Your task to perform on an android device: Show me the alarms in the clock app Image 0: 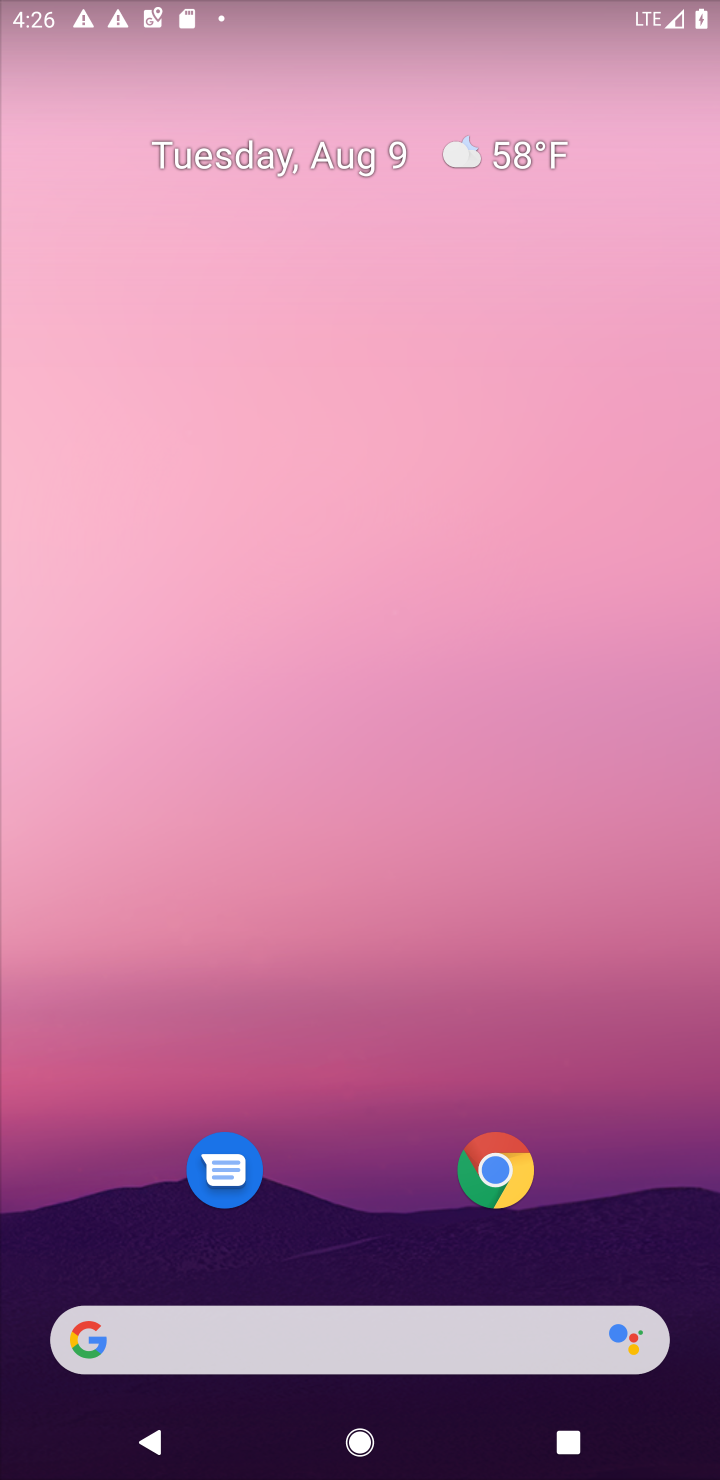
Step 0: press home button
Your task to perform on an android device: Show me the alarms in the clock app Image 1: 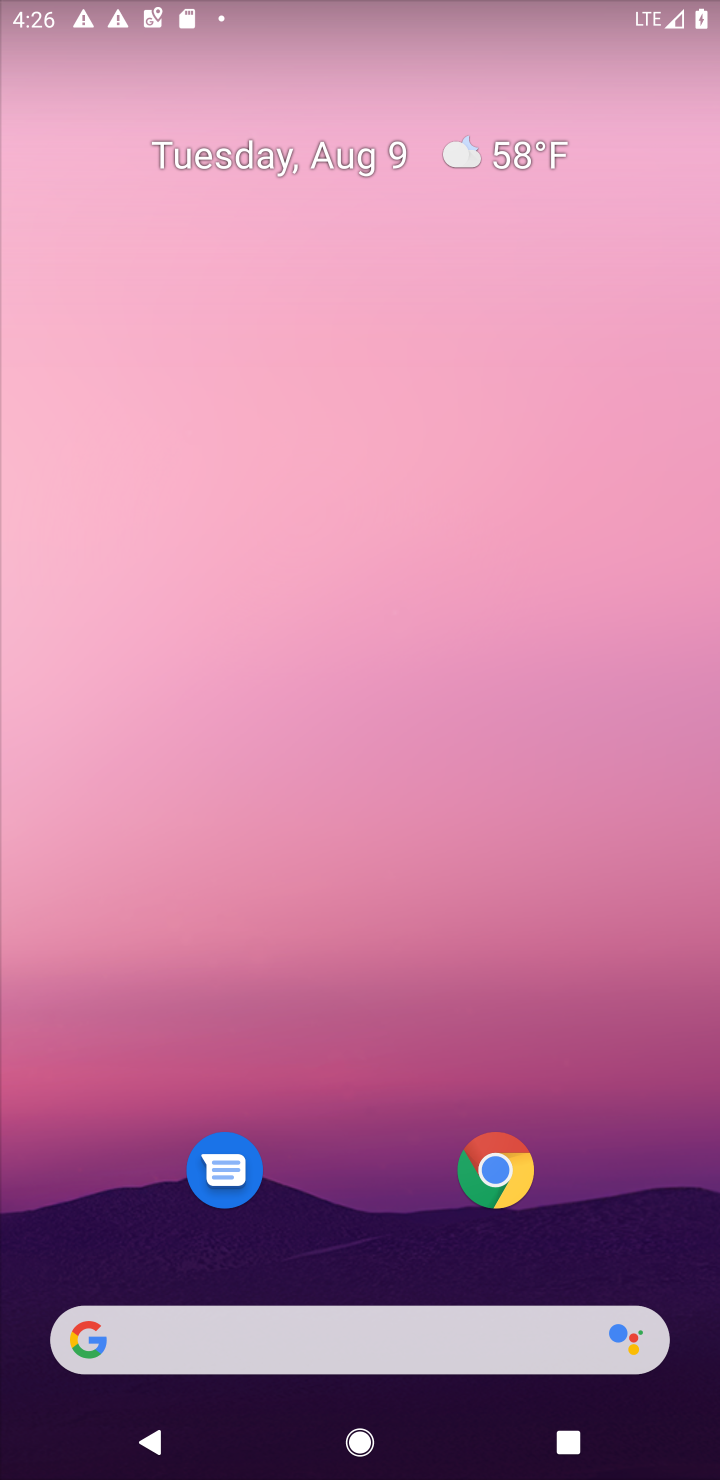
Step 1: drag from (339, 750) to (333, 119)
Your task to perform on an android device: Show me the alarms in the clock app Image 2: 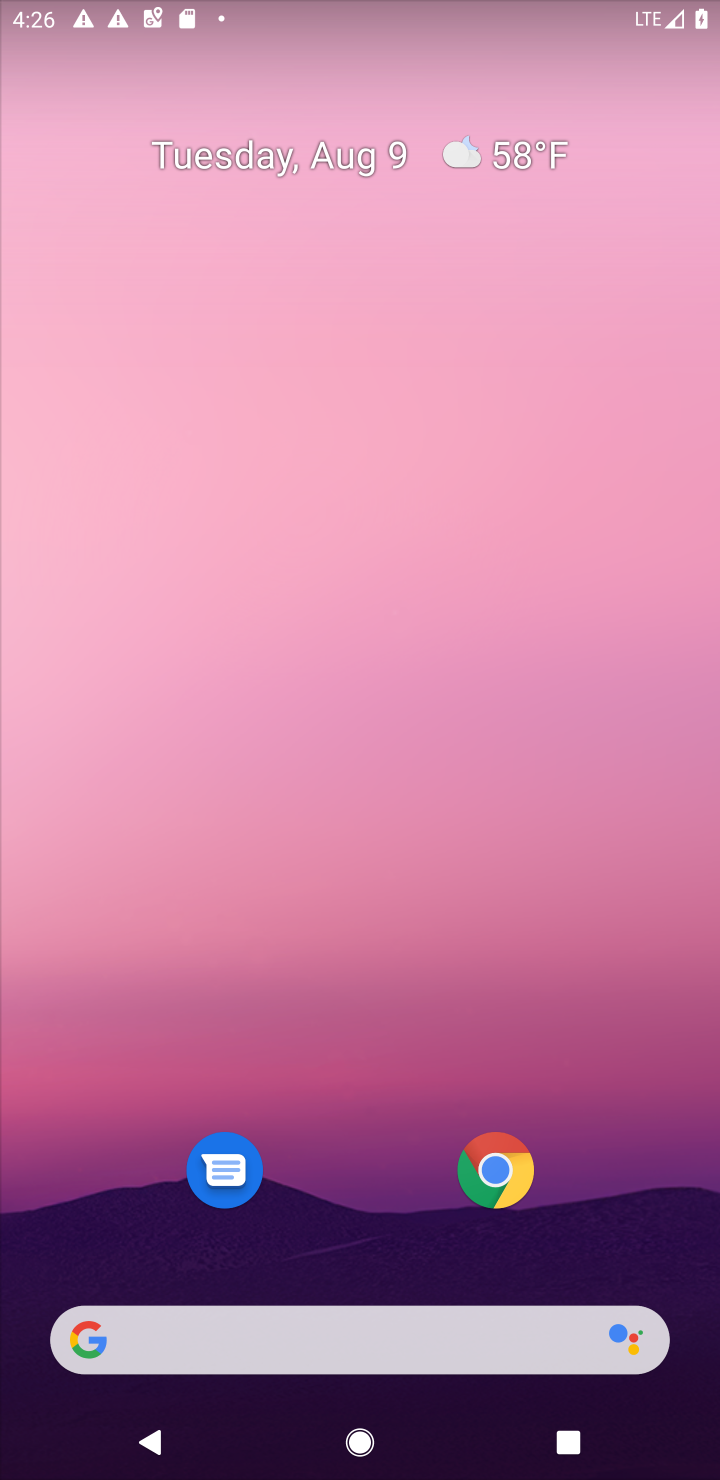
Step 2: drag from (362, 329) to (359, 26)
Your task to perform on an android device: Show me the alarms in the clock app Image 3: 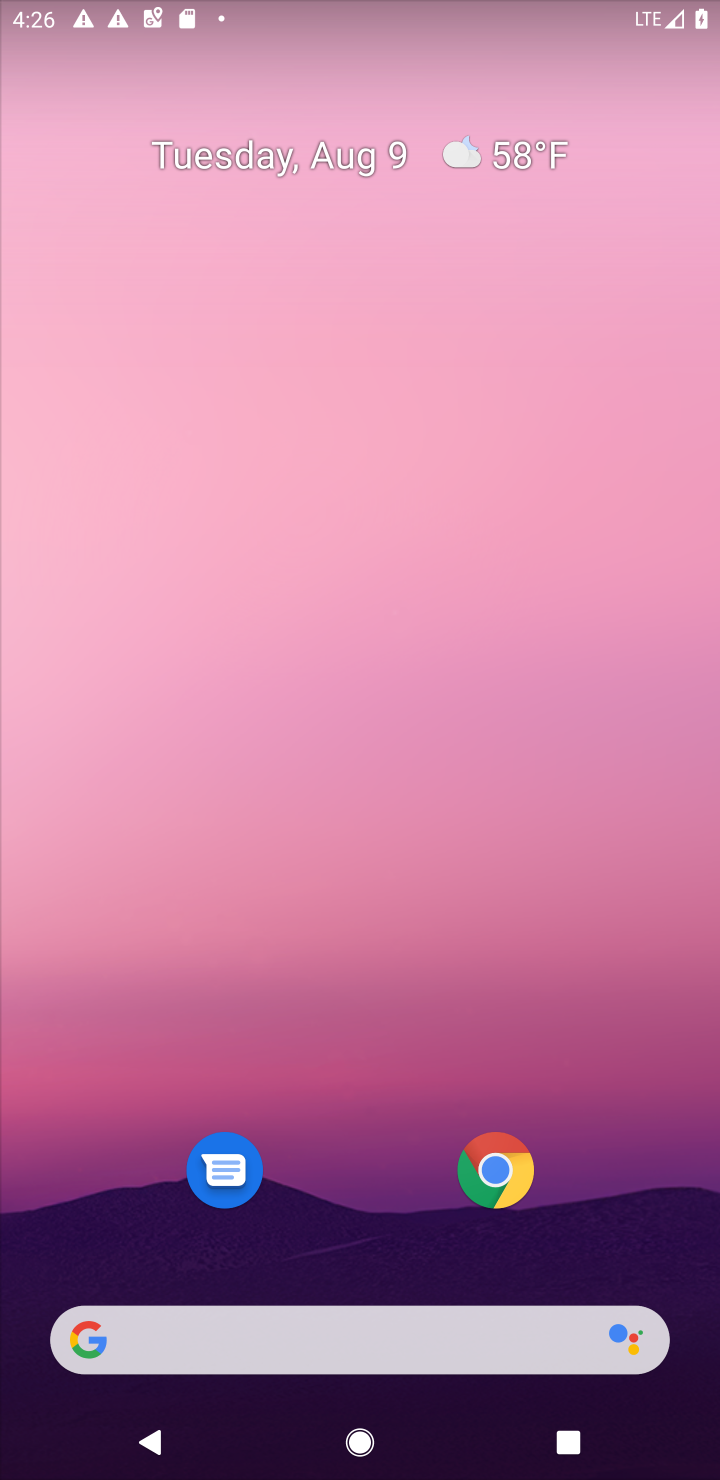
Step 3: drag from (322, 392) to (606, 4)
Your task to perform on an android device: Show me the alarms in the clock app Image 4: 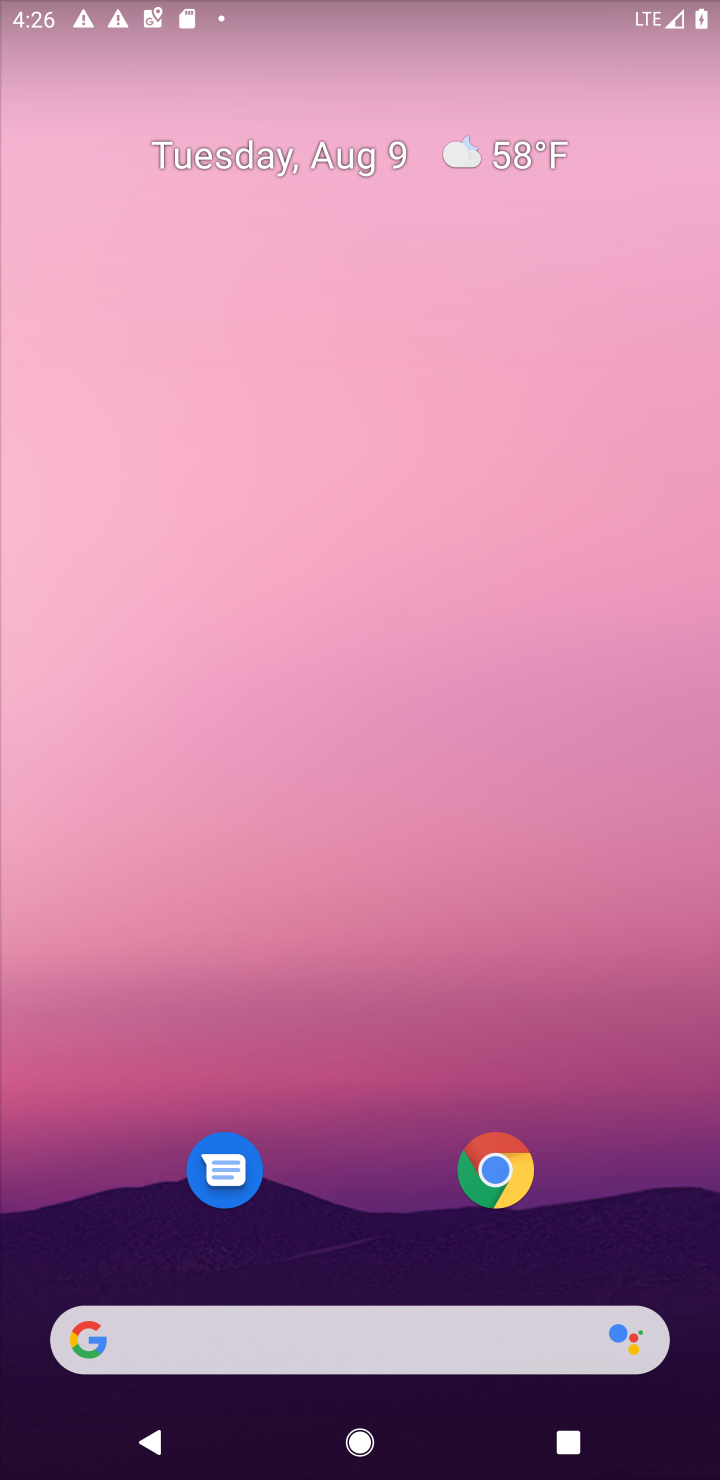
Step 4: drag from (364, 1209) to (653, 49)
Your task to perform on an android device: Show me the alarms in the clock app Image 5: 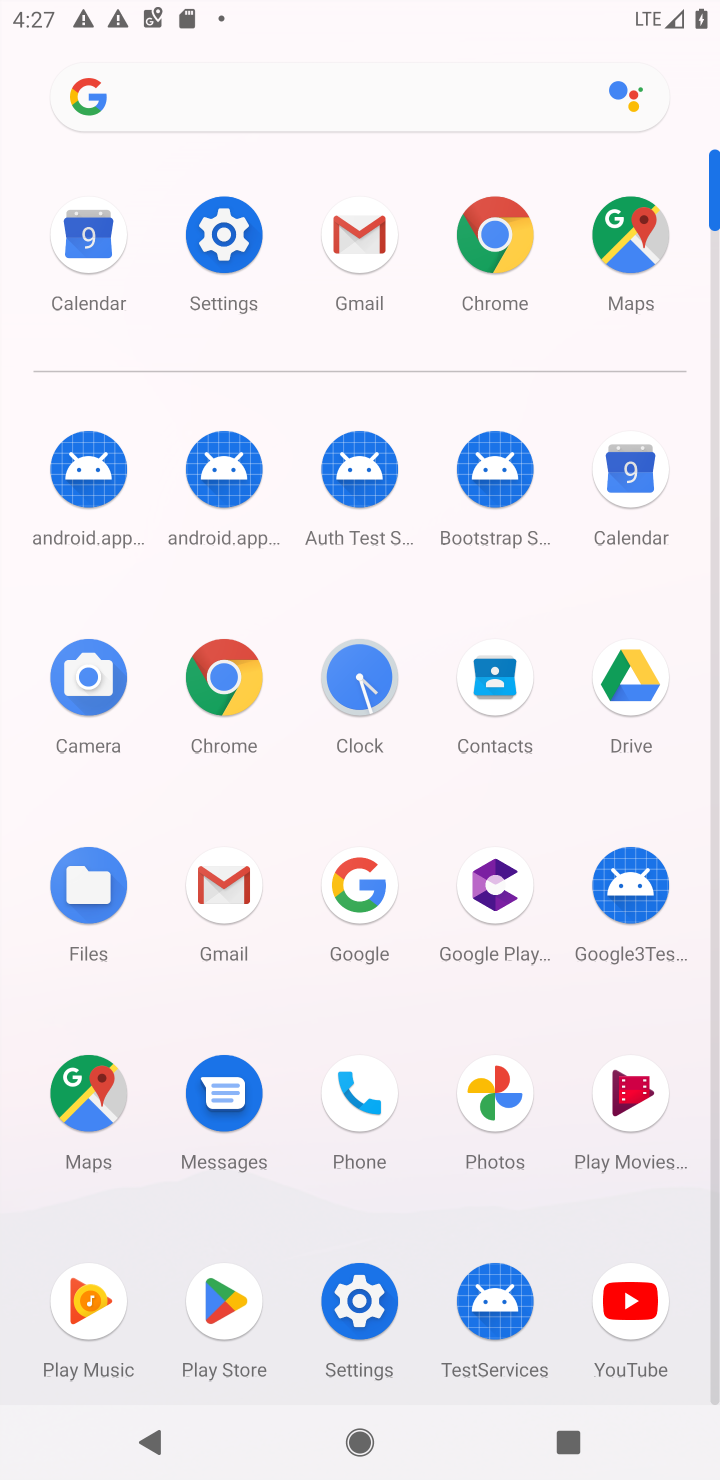
Step 5: click (366, 683)
Your task to perform on an android device: Show me the alarms in the clock app Image 6: 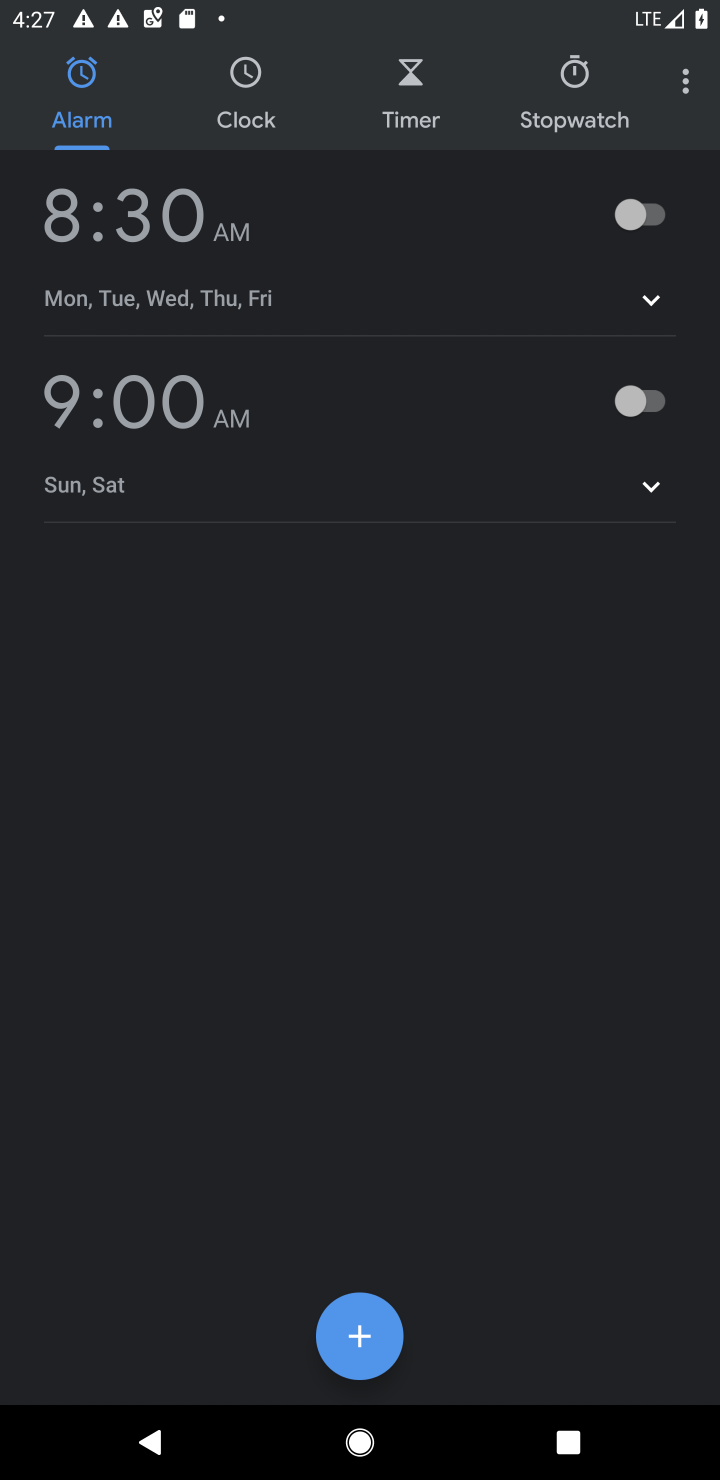
Step 6: task complete